Your task to perform on an android device: install app "LinkedIn" Image 0: 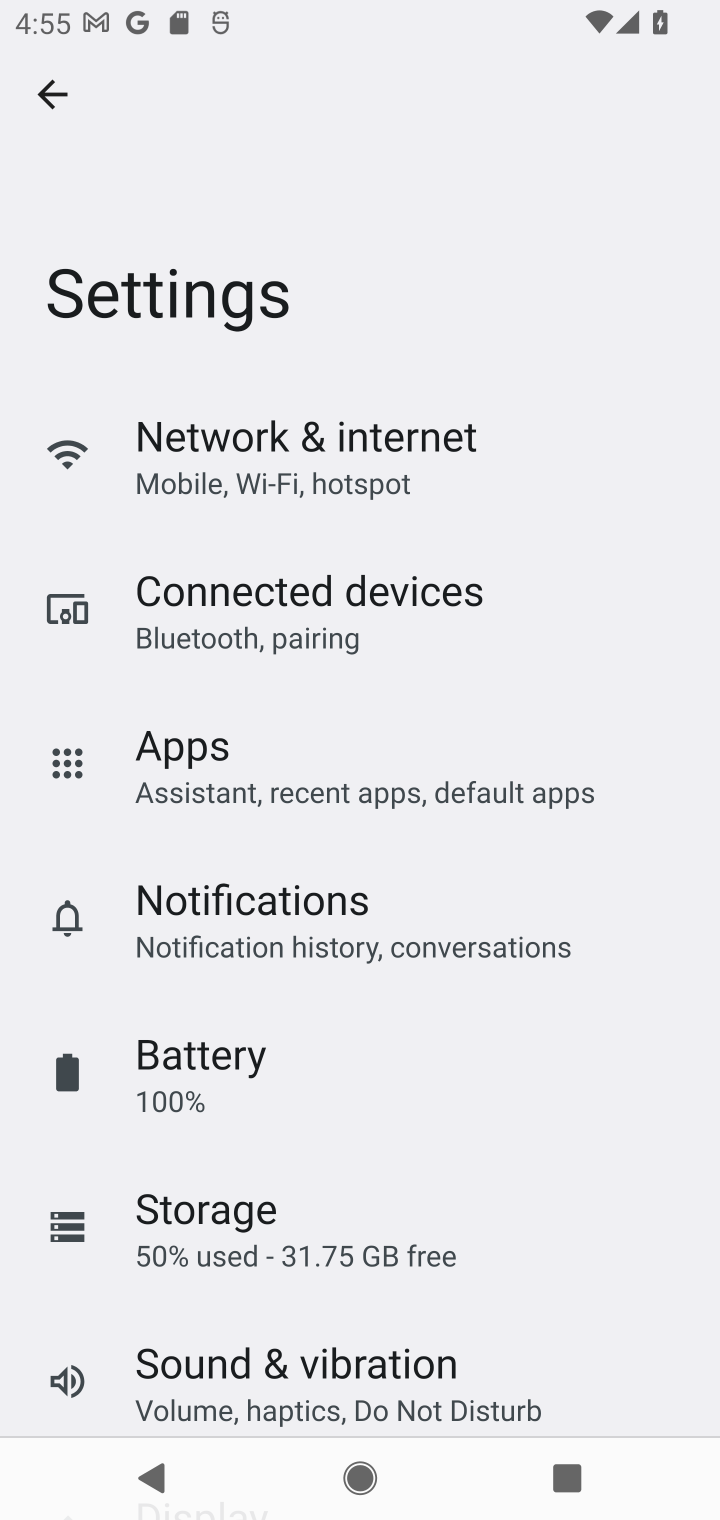
Step 0: press home button
Your task to perform on an android device: install app "LinkedIn" Image 1: 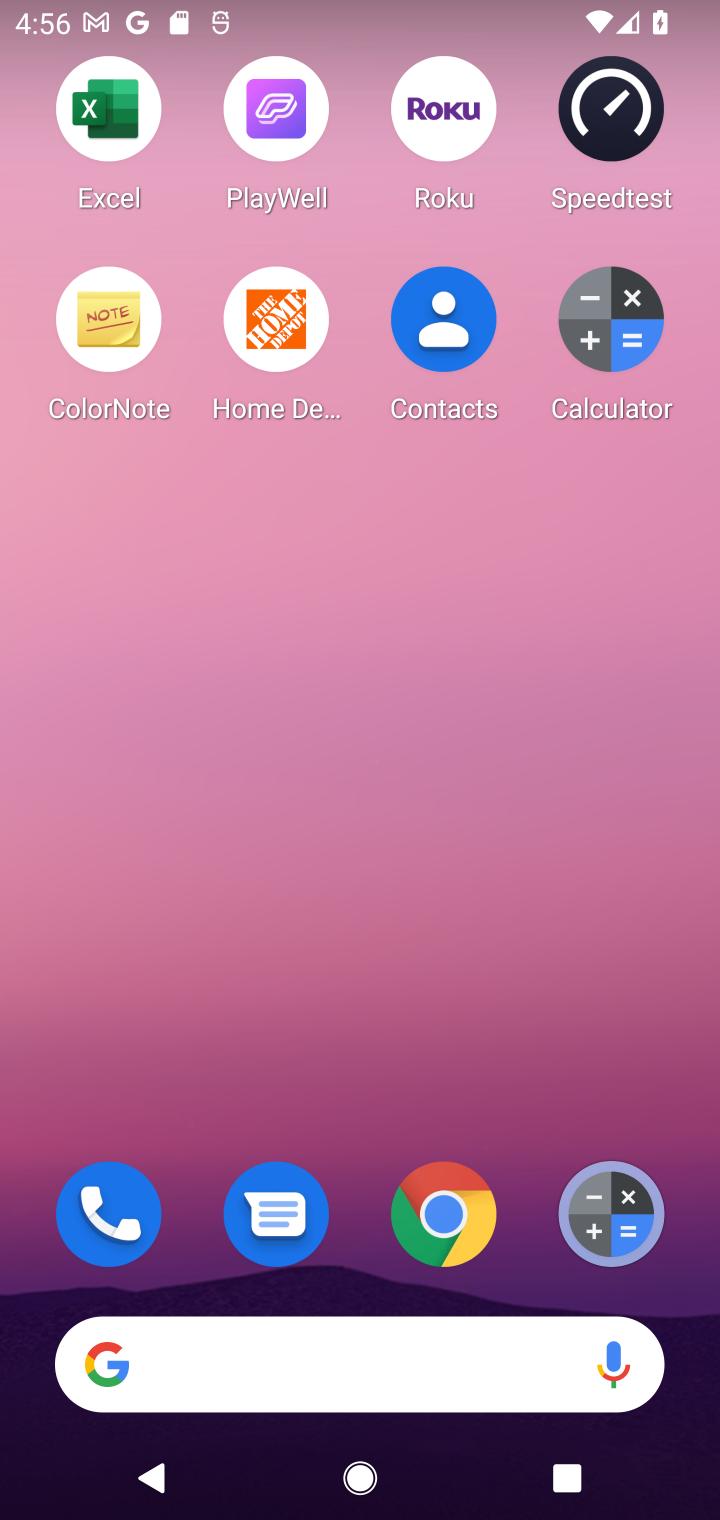
Step 1: drag from (534, 1253) to (522, 147)
Your task to perform on an android device: install app "LinkedIn" Image 2: 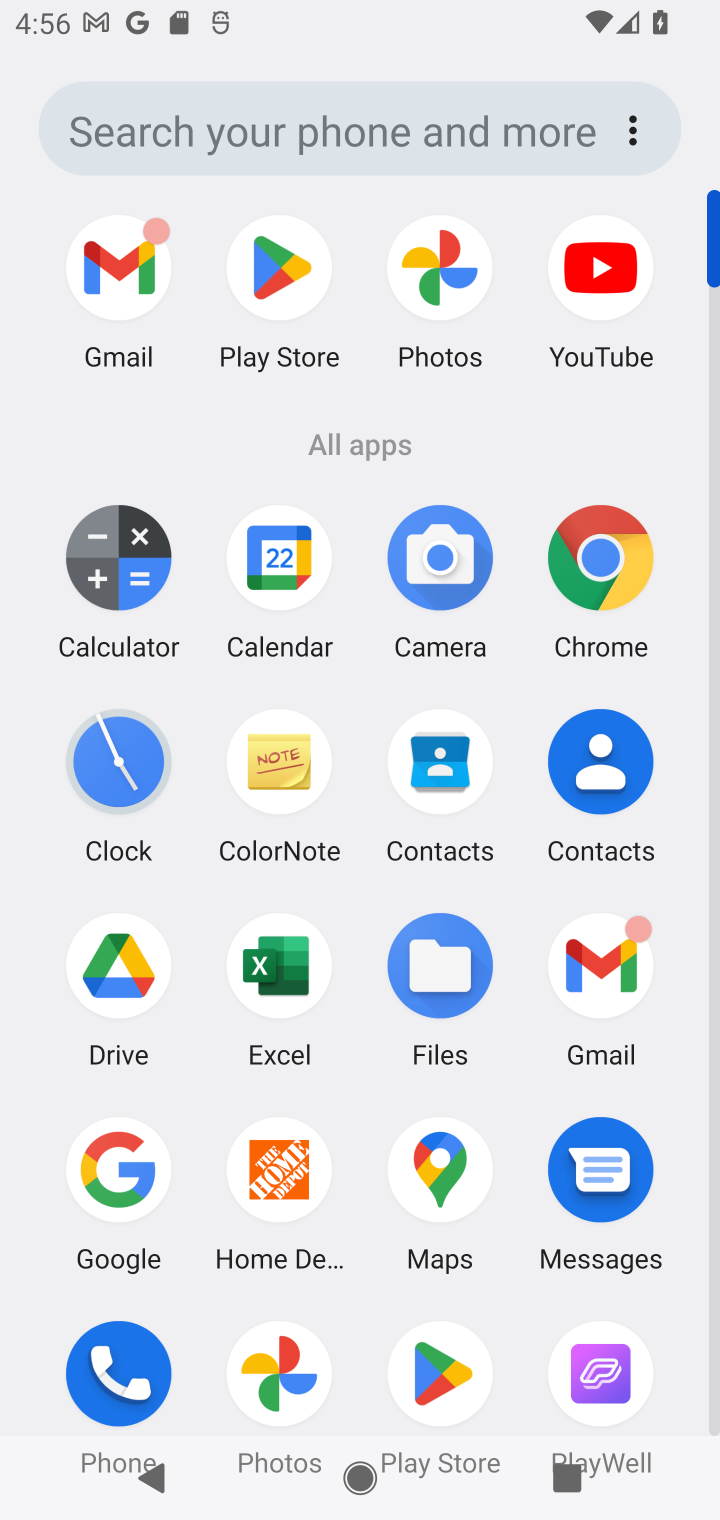
Step 2: click (449, 1382)
Your task to perform on an android device: install app "LinkedIn" Image 3: 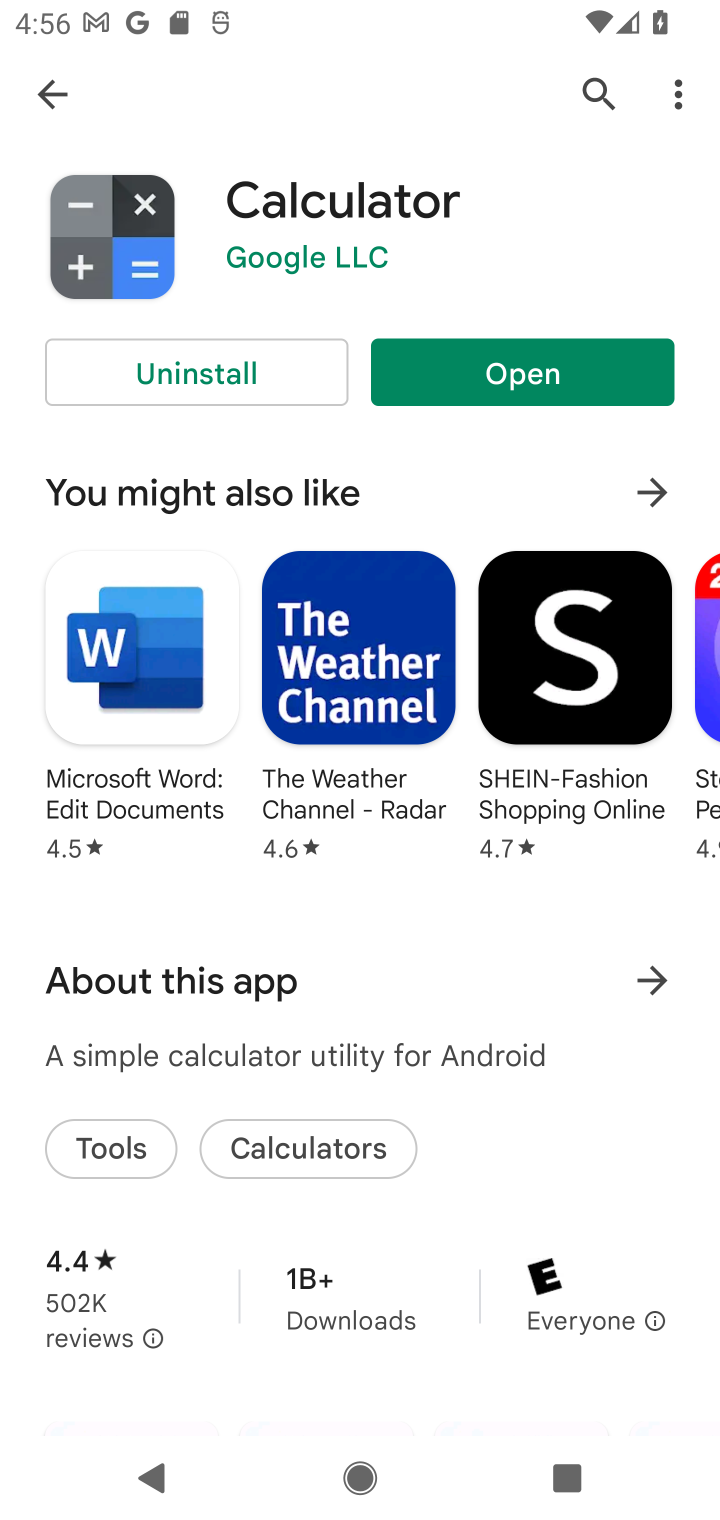
Step 3: click (605, 93)
Your task to perform on an android device: install app "LinkedIn" Image 4: 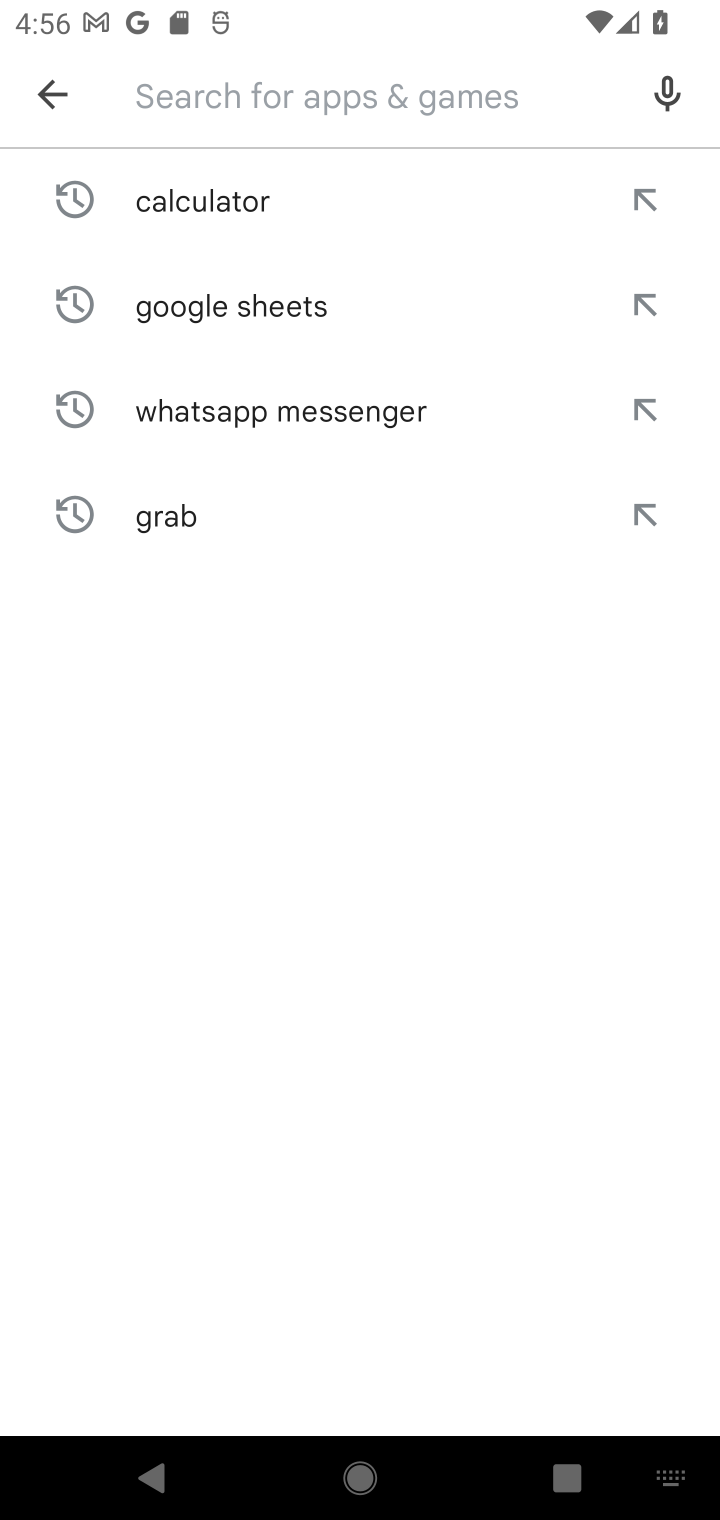
Step 4: type "Linkedin"
Your task to perform on an android device: install app "LinkedIn" Image 5: 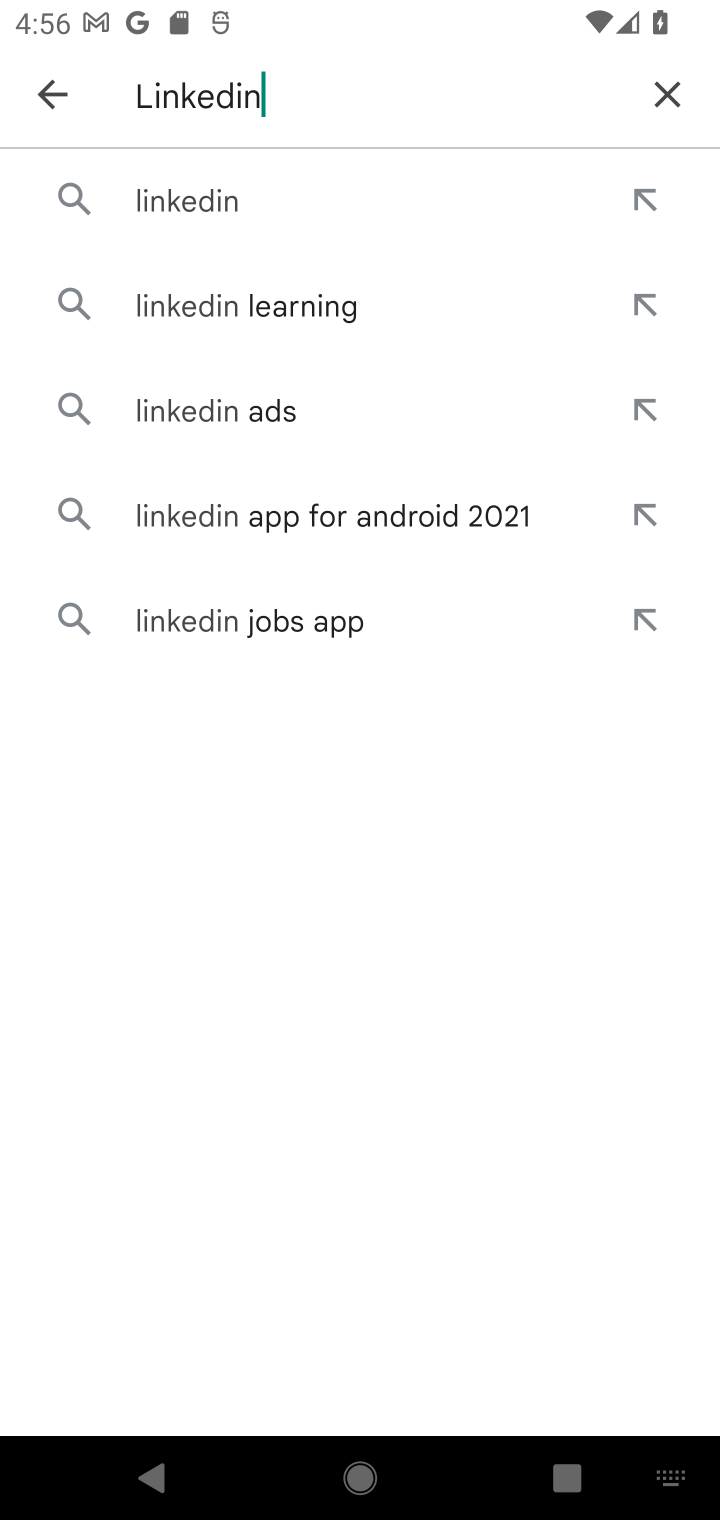
Step 5: click (191, 203)
Your task to perform on an android device: install app "LinkedIn" Image 6: 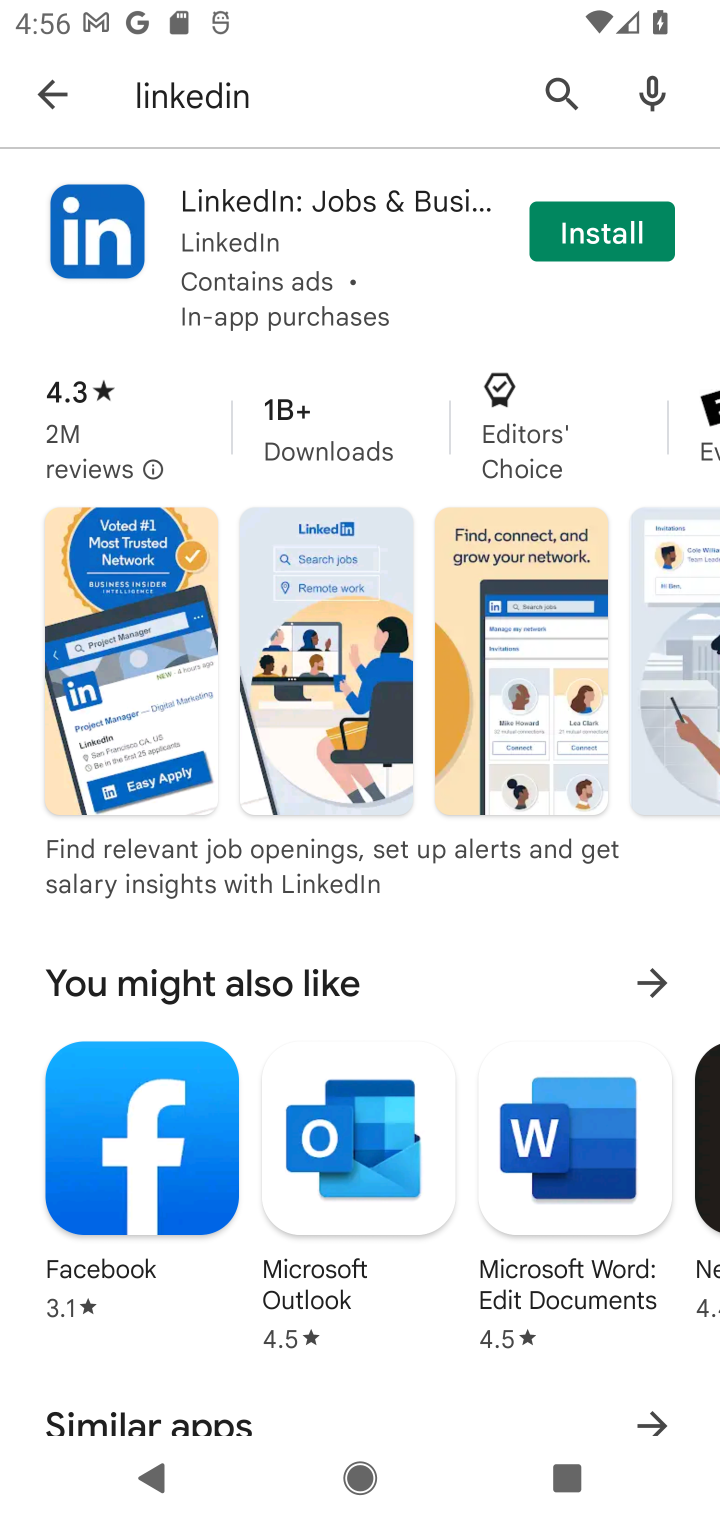
Step 6: click (593, 234)
Your task to perform on an android device: install app "LinkedIn" Image 7: 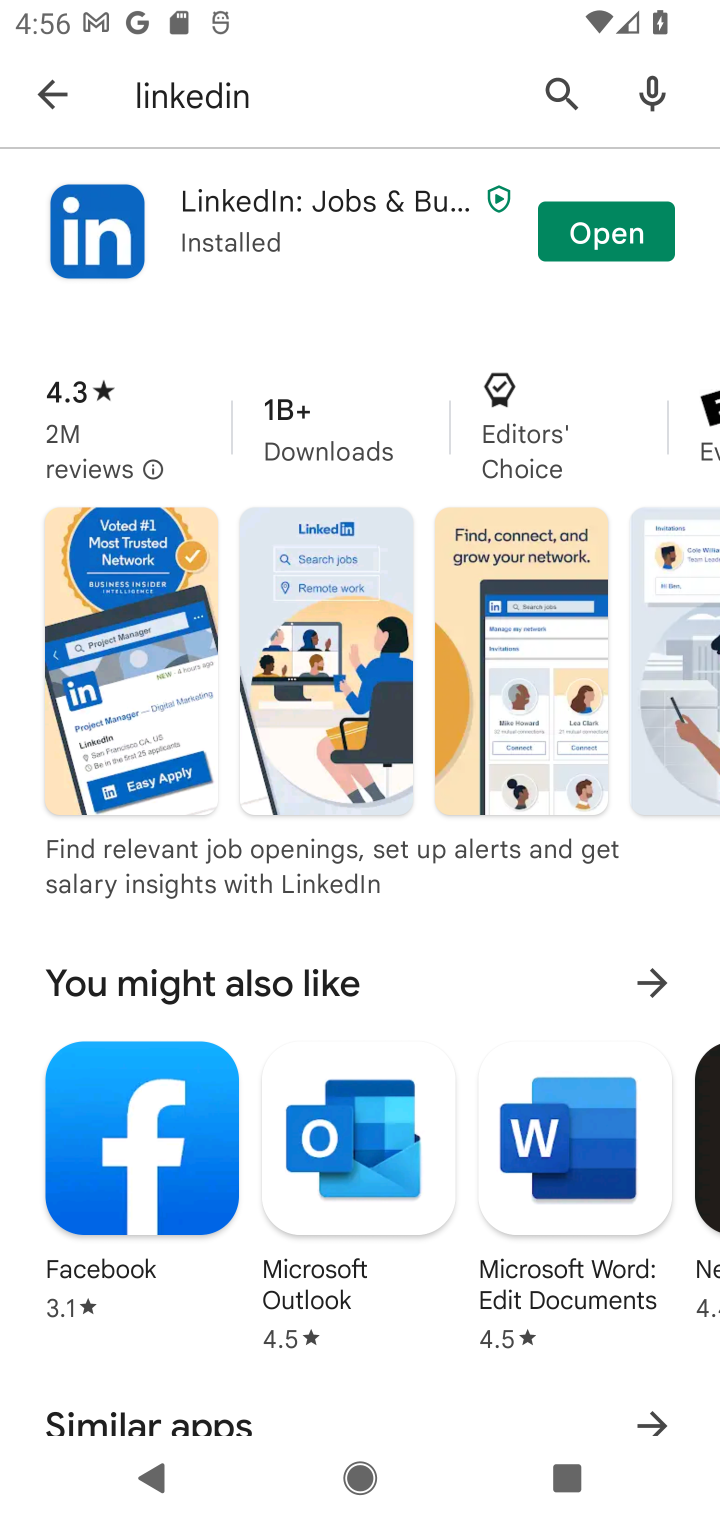
Step 7: task complete